Your task to perform on an android device: open app "Viber Messenger" Image 0: 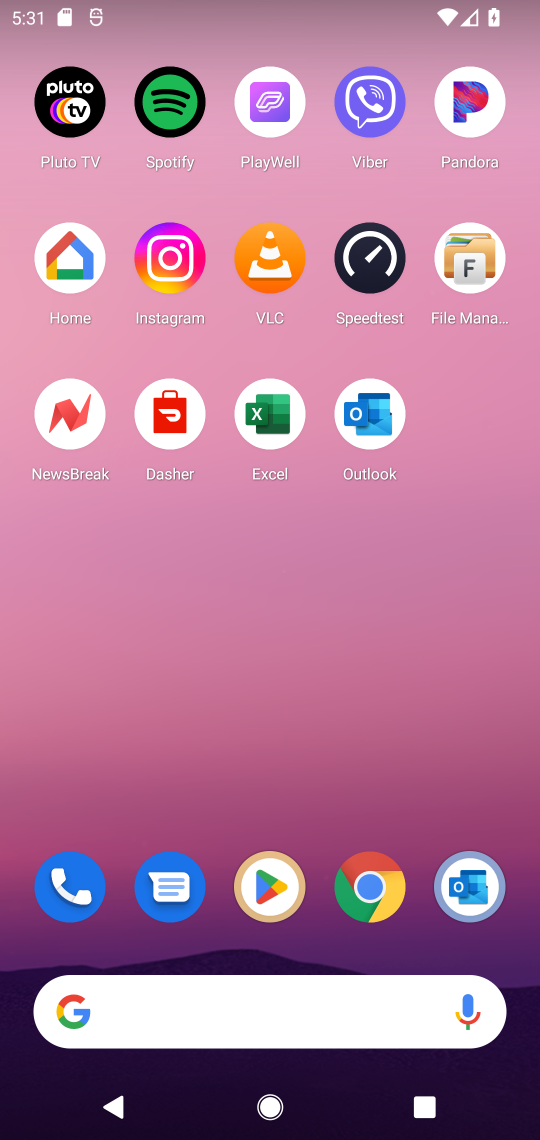
Step 0: click (267, 884)
Your task to perform on an android device: open app "Viber Messenger" Image 1: 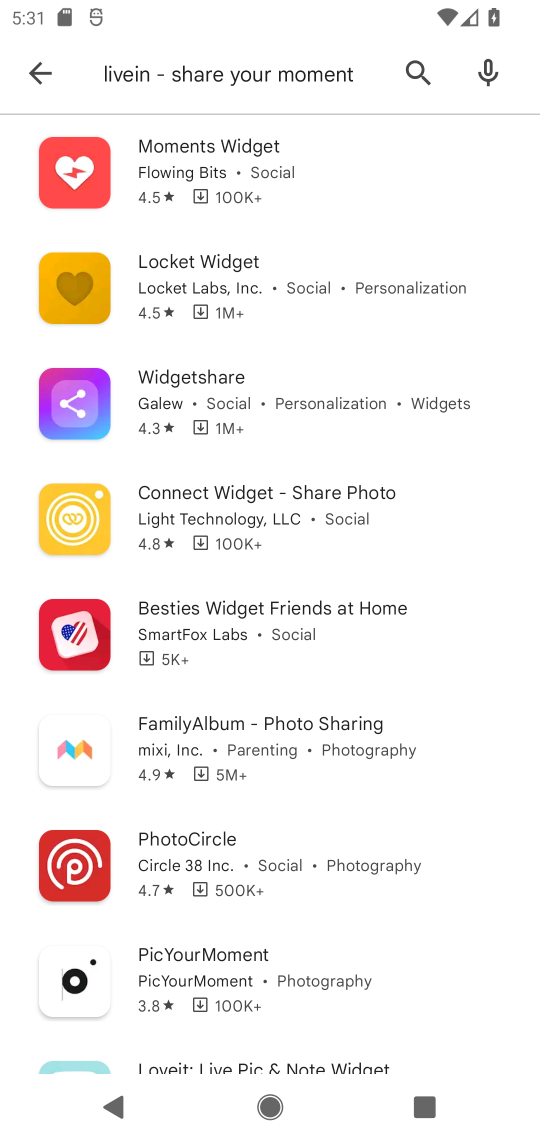
Step 1: click (412, 66)
Your task to perform on an android device: open app "Viber Messenger" Image 2: 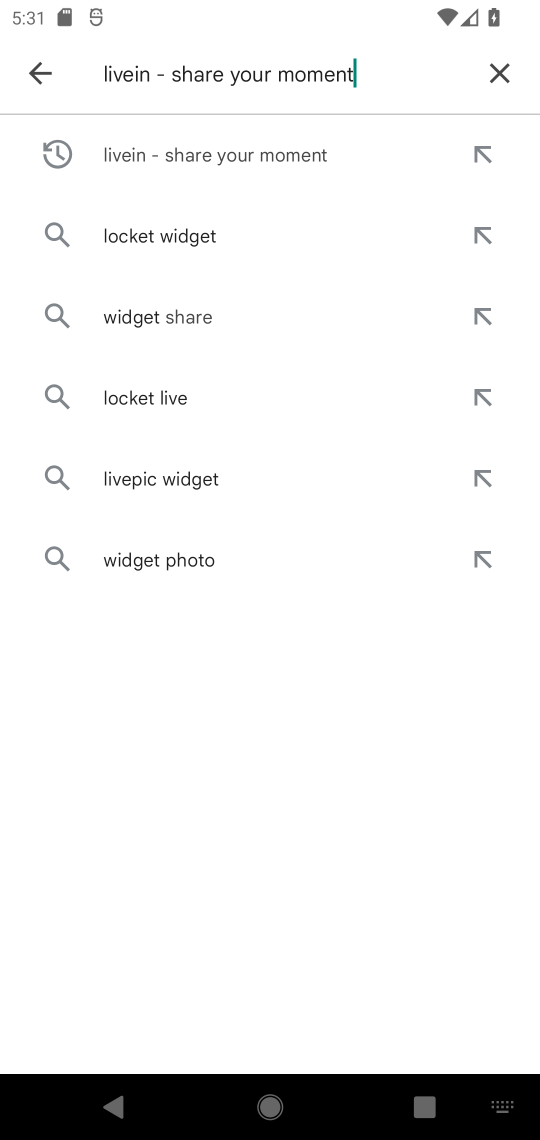
Step 2: click (494, 73)
Your task to perform on an android device: open app "Viber Messenger" Image 3: 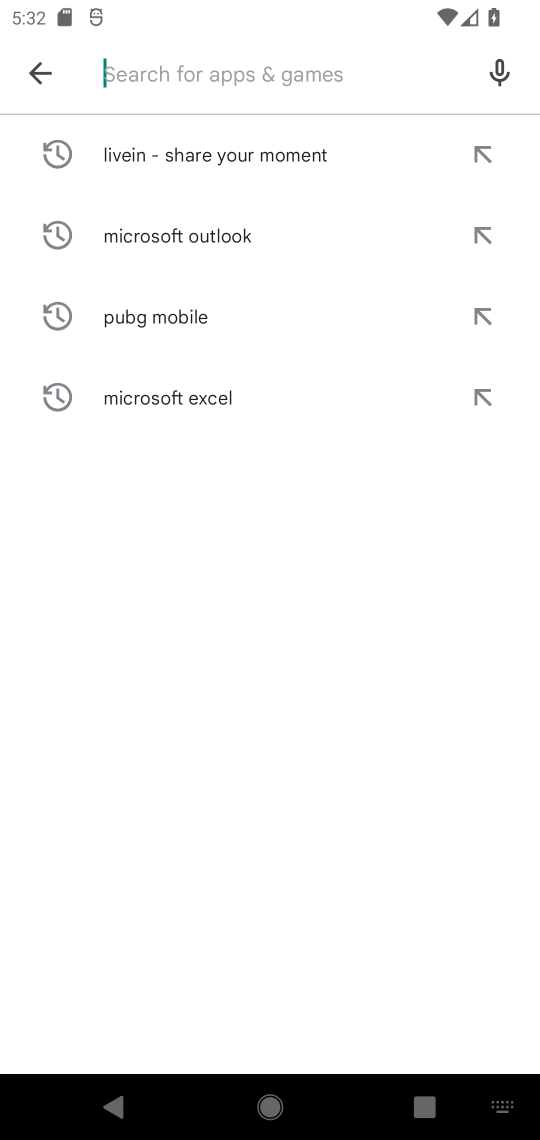
Step 3: type "Viber Messenger"
Your task to perform on an android device: open app "Viber Messenger" Image 4: 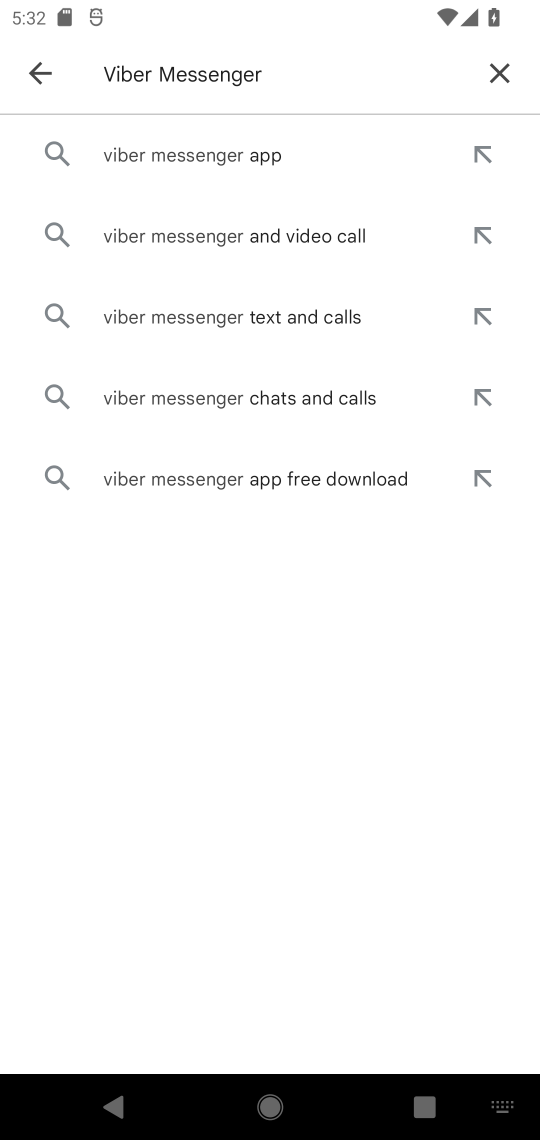
Step 4: click (207, 150)
Your task to perform on an android device: open app "Viber Messenger" Image 5: 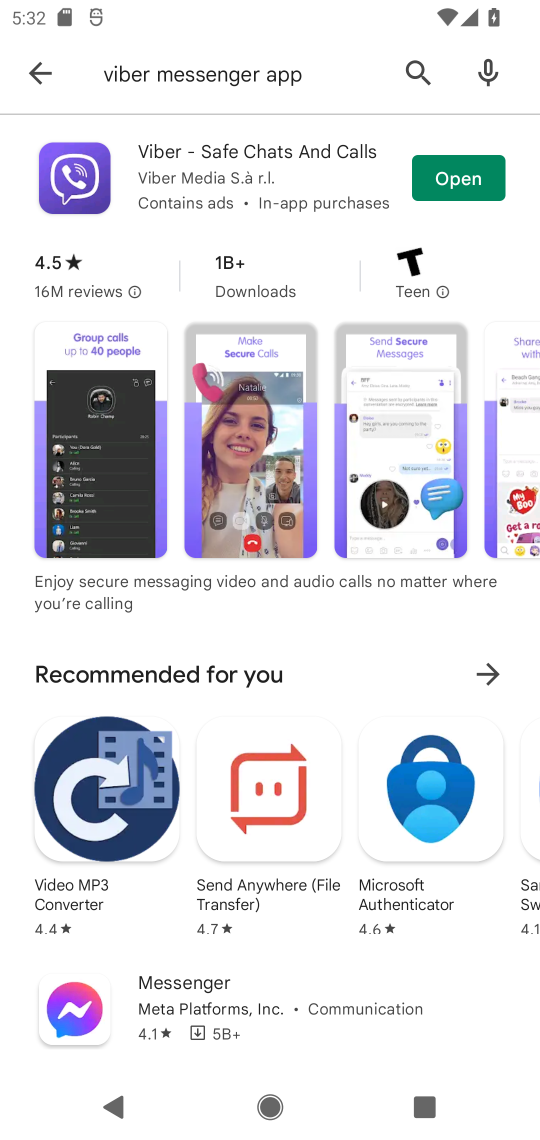
Step 5: click (447, 179)
Your task to perform on an android device: open app "Viber Messenger" Image 6: 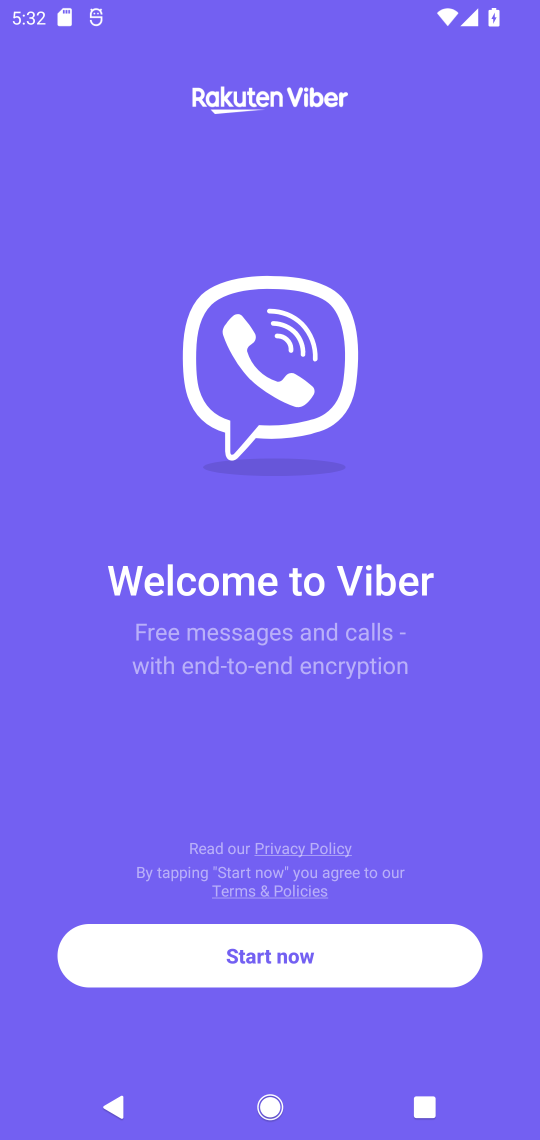
Step 6: task complete